Your task to perform on an android device: What's on my calendar tomorrow? Image 0: 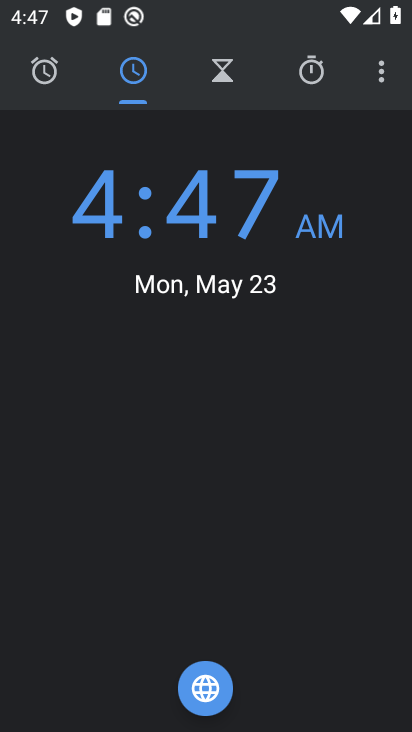
Step 0: press home button
Your task to perform on an android device: What's on my calendar tomorrow? Image 1: 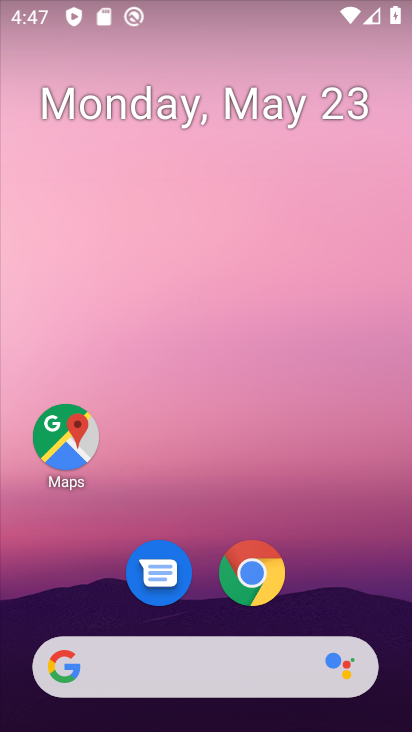
Step 1: drag from (328, 568) to (260, 190)
Your task to perform on an android device: What's on my calendar tomorrow? Image 2: 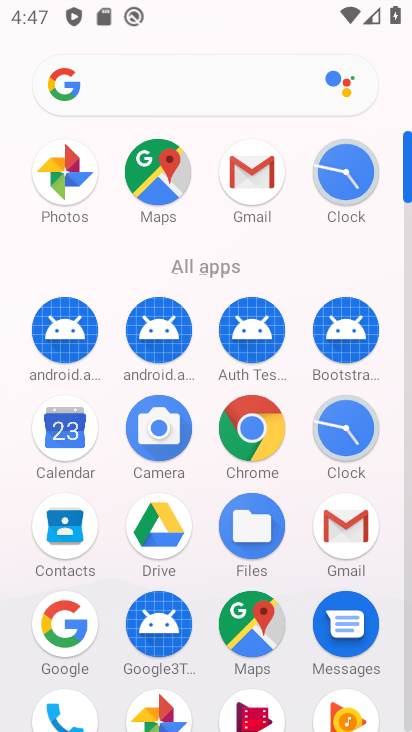
Step 2: click (67, 424)
Your task to perform on an android device: What's on my calendar tomorrow? Image 3: 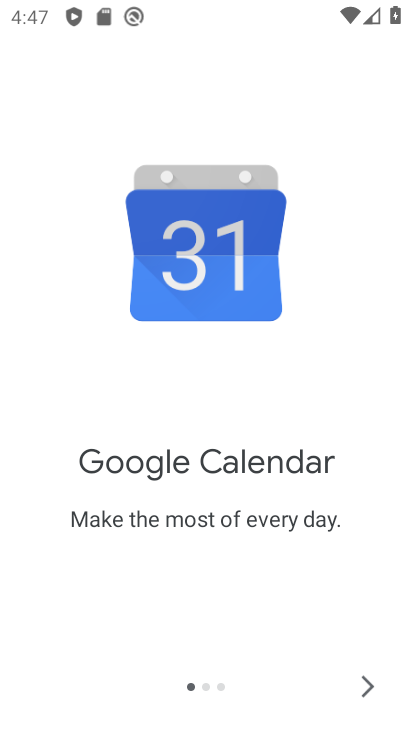
Step 3: click (371, 686)
Your task to perform on an android device: What's on my calendar tomorrow? Image 4: 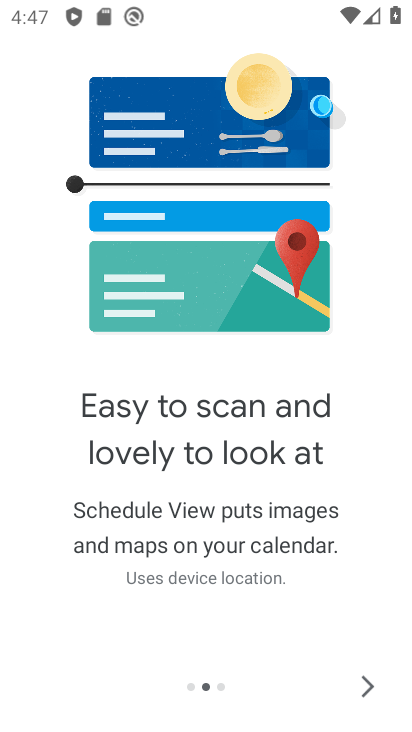
Step 4: click (368, 687)
Your task to perform on an android device: What's on my calendar tomorrow? Image 5: 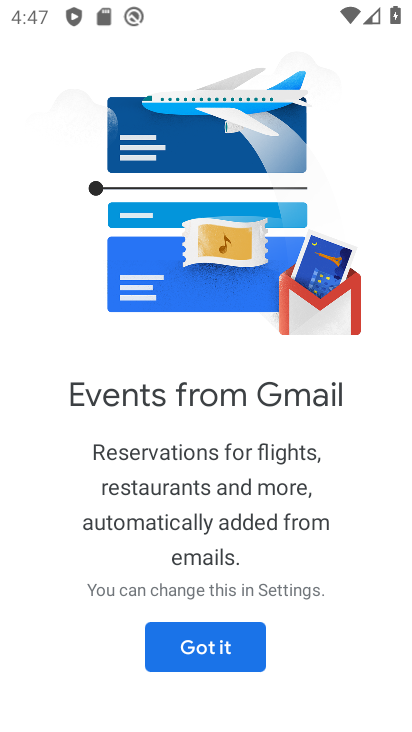
Step 5: click (225, 654)
Your task to perform on an android device: What's on my calendar tomorrow? Image 6: 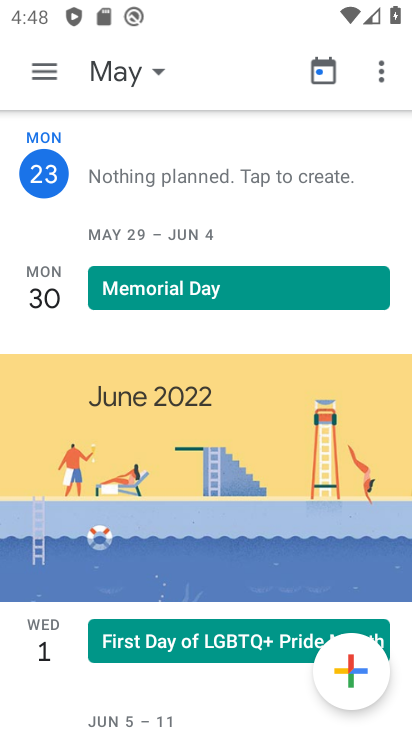
Step 6: click (329, 75)
Your task to perform on an android device: What's on my calendar tomorrow? Image 7: 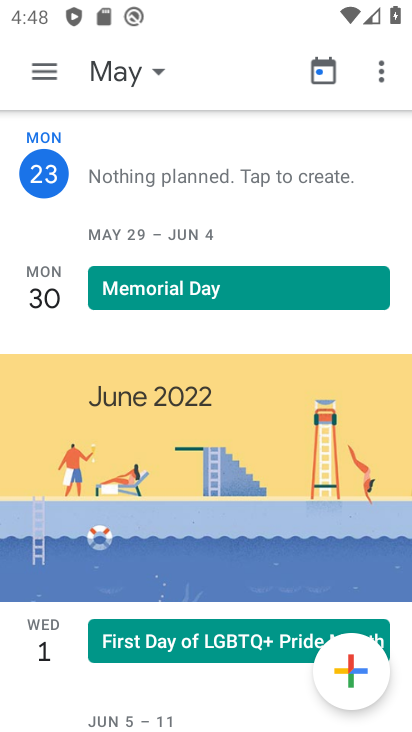
Step 7: click (161, 72)
Your task to perform on an android device: What's on my calendar tomorrow? Image 8: 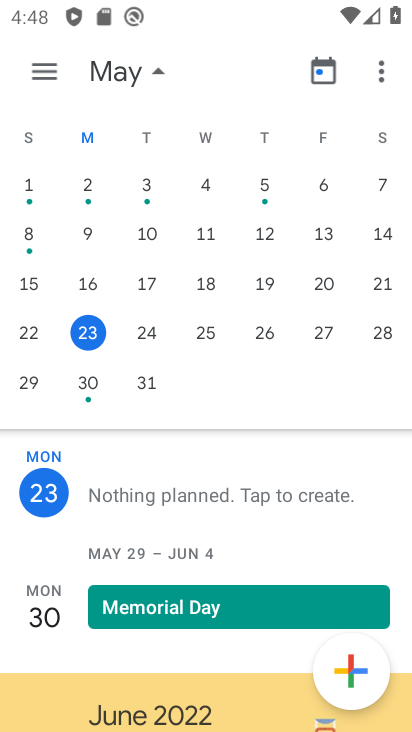
Step 8: click (160, 338)
Your task to perform on an android device: What's on my calendar tomorrow? Image 9: 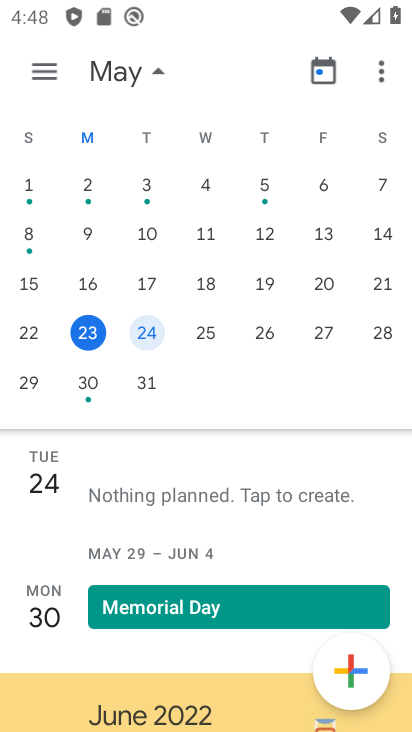
Step 9: click (160, 338)
Your task to perform on an android device: What's on my calendar tomorrow? Image 10: 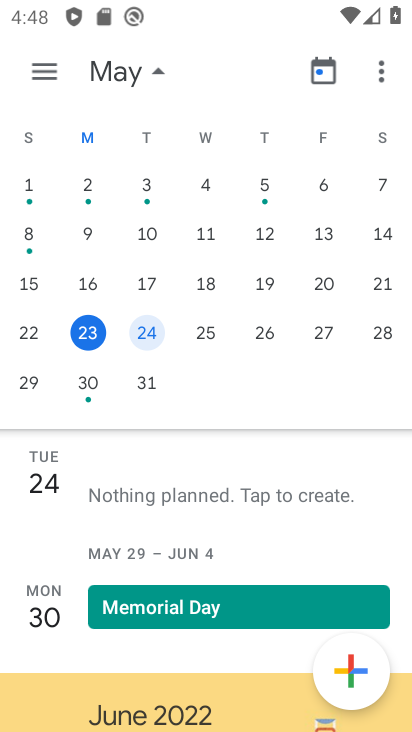
Step 10: click (201, 495)
Your task to perform on an android device: What's on my calendar tomorrow? Image 11: 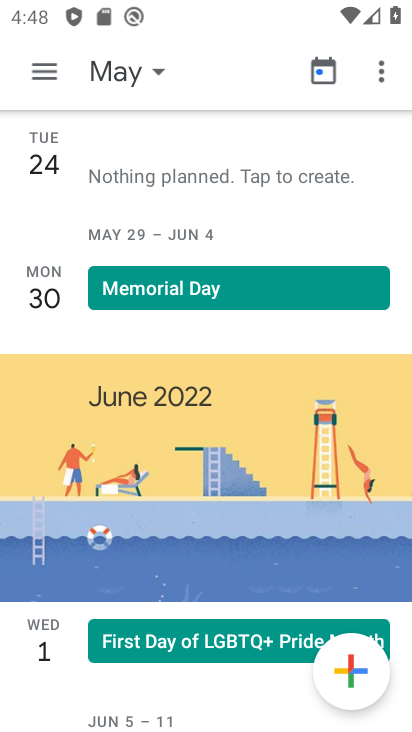
Step 11: task complete